Your task to perform on an android device: turn off priority inbox in the gmail app Image 0: 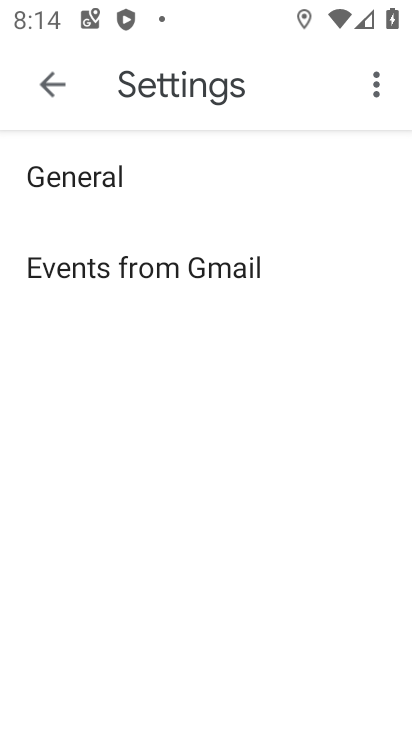
Step 0: press home button
Your task to perform on an android device: turn off priority inbox in the gmail app Image 1: 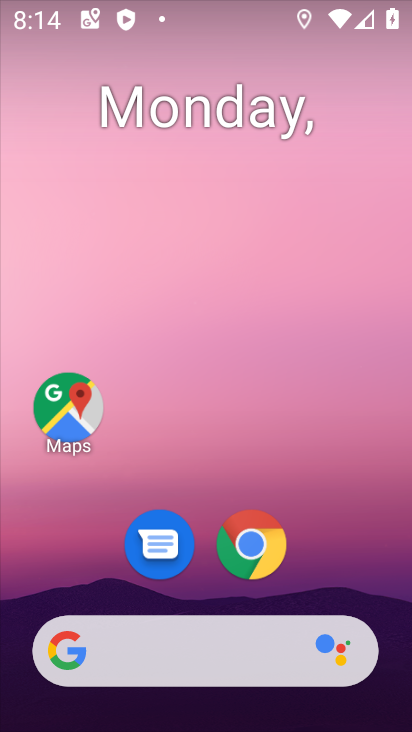
Step 1: drag from (206, 605) to (181, 2)
Your task to perform on an android device: turn off priority inbox in the gmail app Image 2: 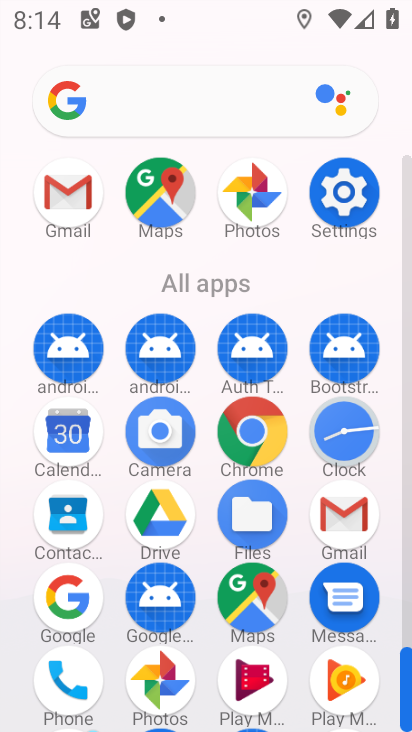
Step 2: click (354, 518)
Your task to perform on an android device: turn off priority inbox in the gmail app Image 3: 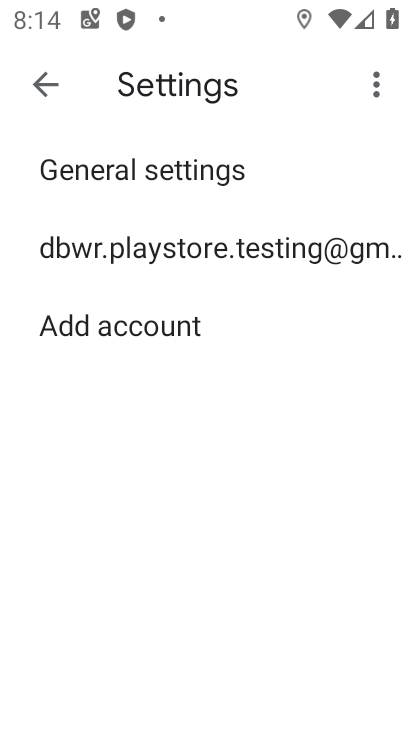
Step 3: click (134, 244)
Your task to perform on an android device: turn off priority inbox in the gmail app Image 4: 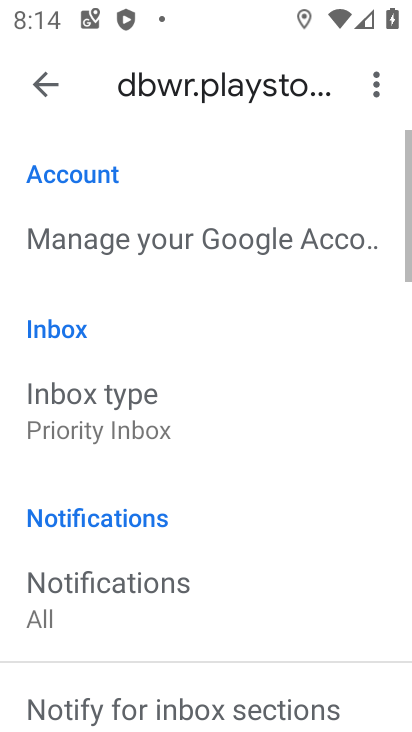
Step 4: click (133, 402)
Your task to perform on an android device: turn off priority inbox in the gmail app Image 5: 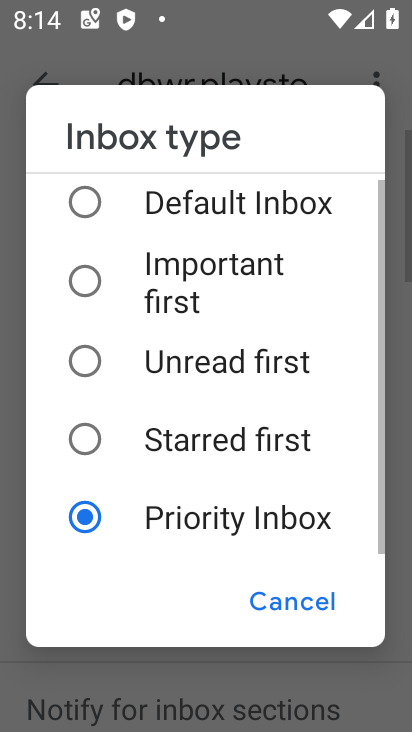
Step 5: click (139, 192)
Your task to perform on an android device: turn off priority inbox in the gmail app Image 6: 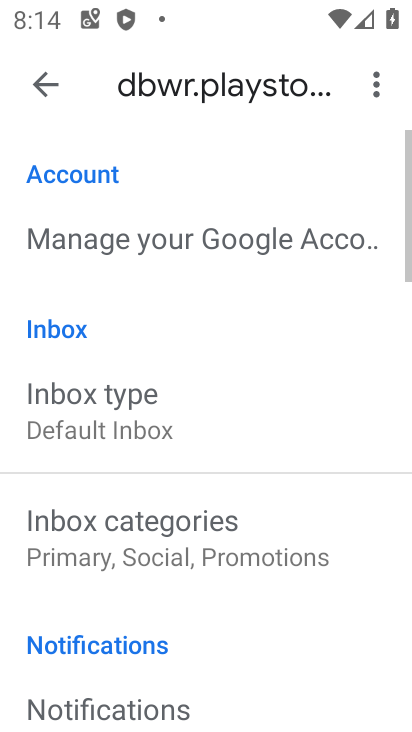
Step 6: task complete